Your task to perform on an android device: change notifications settings Image 0: 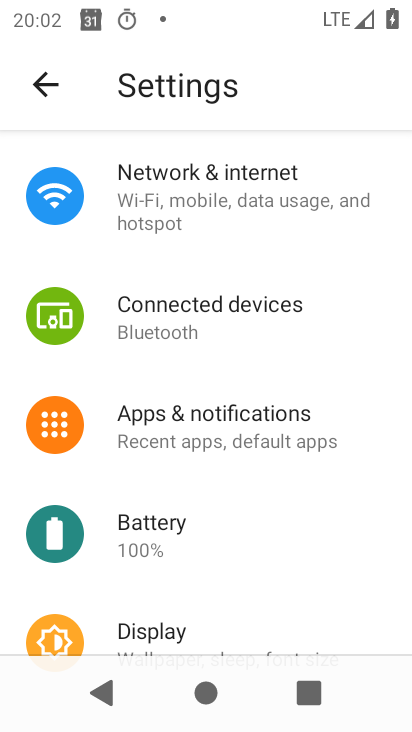
Step 0: click (221, 430)
Your task to perform on an android device: change notifications settings Image 1: 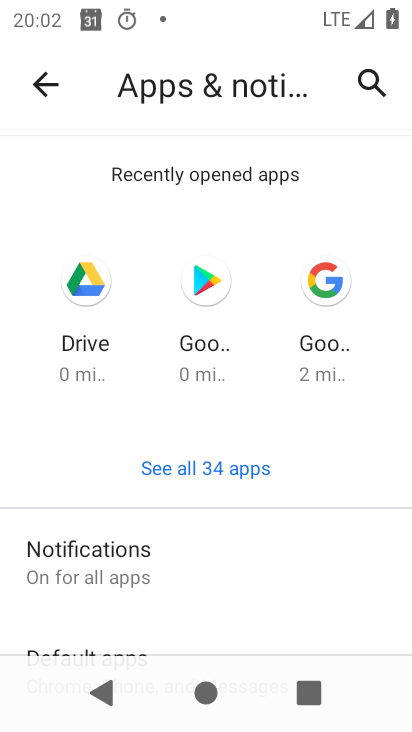
Step 1: click (66, 576)
Your task to perform on an android device: change notifications settings Image 2: 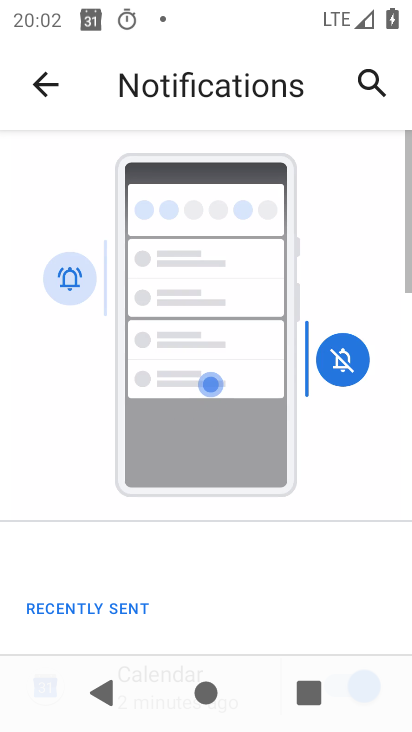
Step 2: drag from (208, 586) to (227, 67)
Your task to perform on an android device: change notifications settings Image 3: 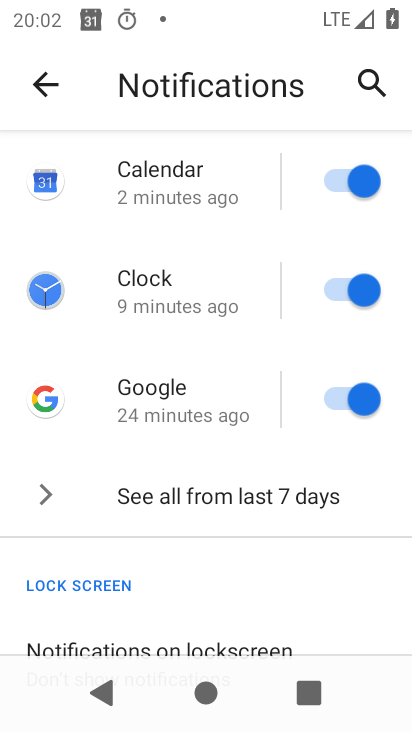
Step 3: click (57, 78)
Your task to perform on an android device: change notifications settings Image 4: 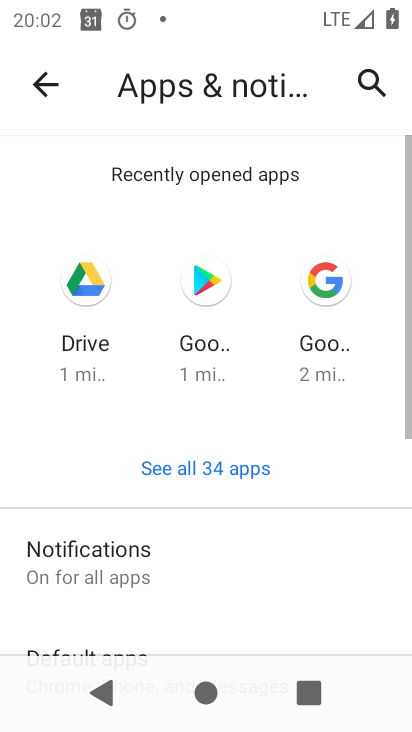
Step 4: click (105, 567)
Your task to perform on an android device: change notifications settings Image 5: 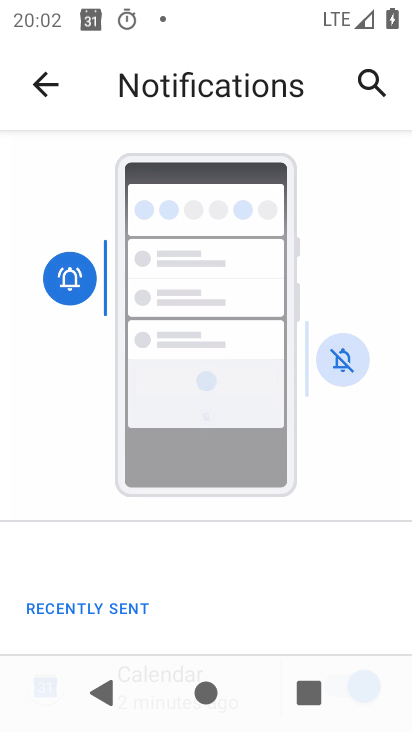
Step 5: drag from (165, 590) to (249, 2)
Your task to perform on an android device: change notifications settings Image 6: 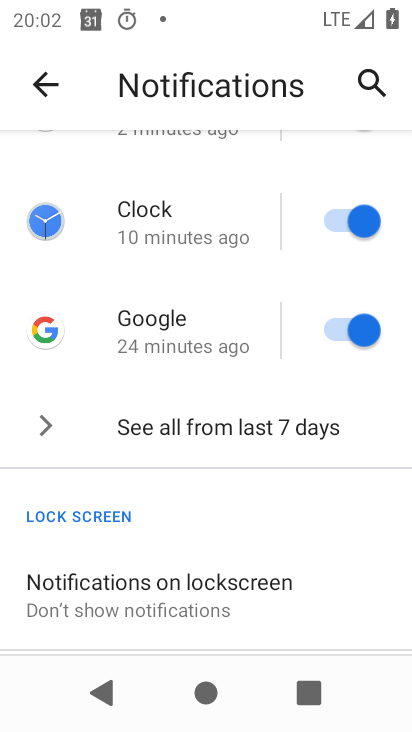
Step 6: drag from (260, 511) to (203, 0)
Your task to perform on an android device: change notifications settings Image 7: 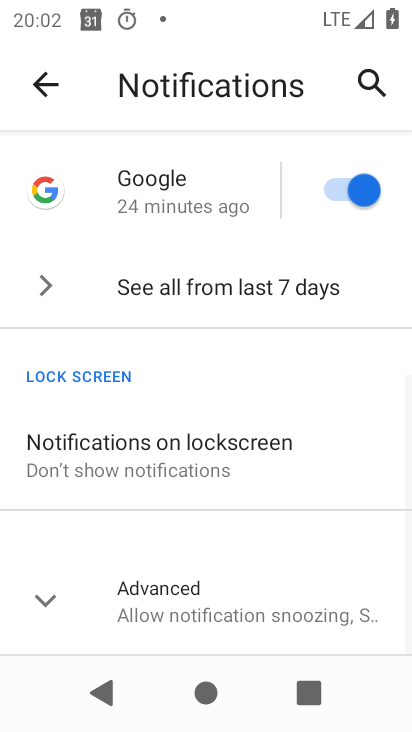
Step 7: click (137, 607)
Your task to perform on an android device: change notifications settings Image 8: 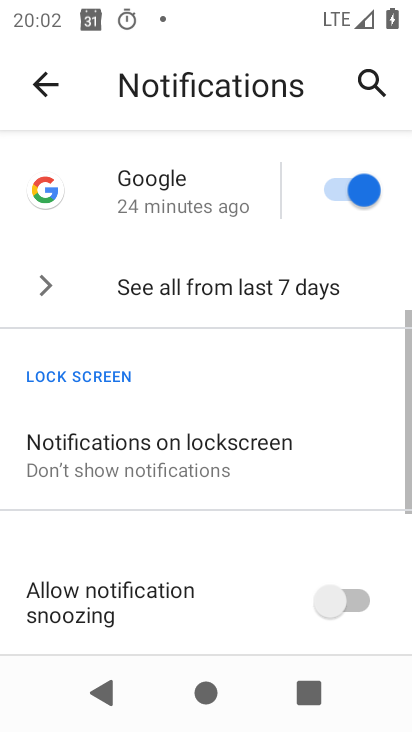
Step 8: drag from (211, 568) to (305, 0)
Your task to perform on an android device: change notifications settings Image 9: 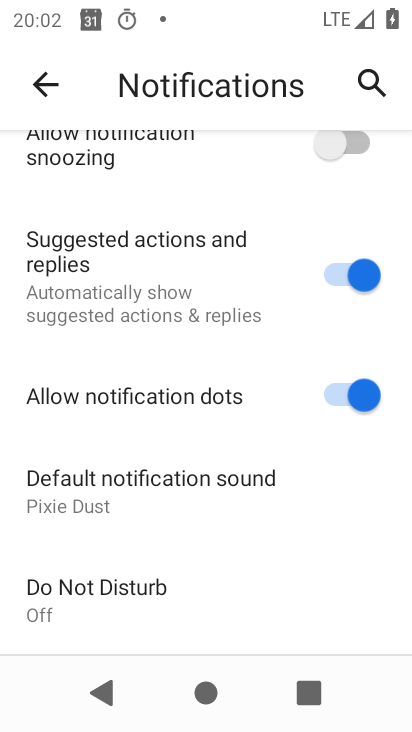
Step 9: click (318, 148)
Your task to perform on an android device: change notifications settings Image 10: 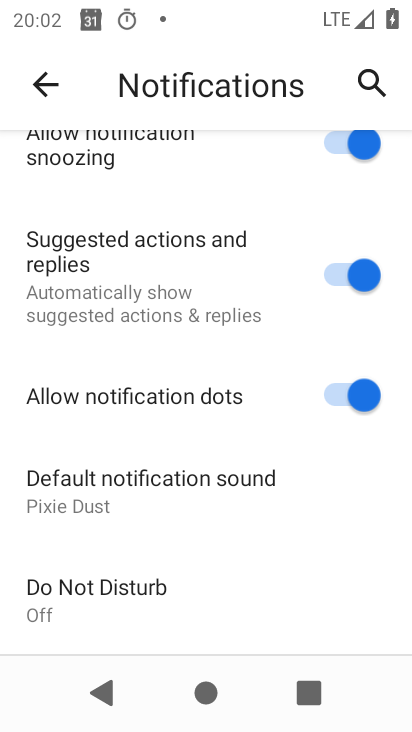
Step 10: task complete